Your task to perform on an android device: turn on priority inbox in the gmail app Image 0: 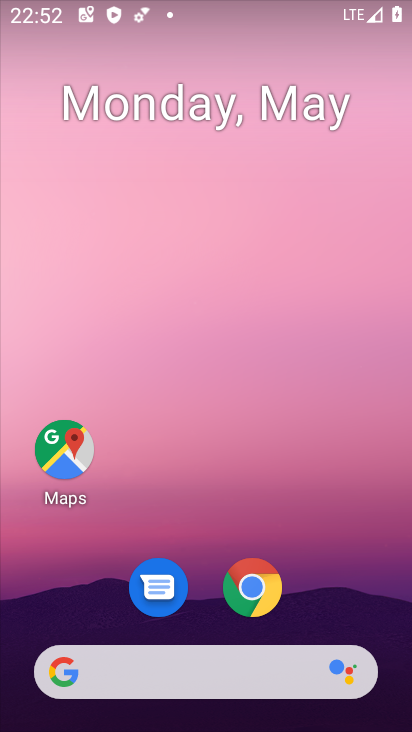
Step 0: drag from (214, 639) to (151, 9)
Your task to perform on an android device: turn on priority inbox in the gmail app Image 1: 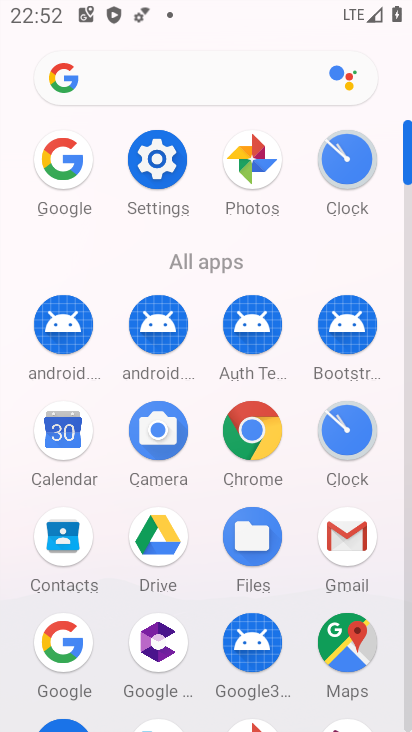
Step 1: click (345, 557)
Your task to perform on an android device: turn on priority inbox in the gmail app Image 2: 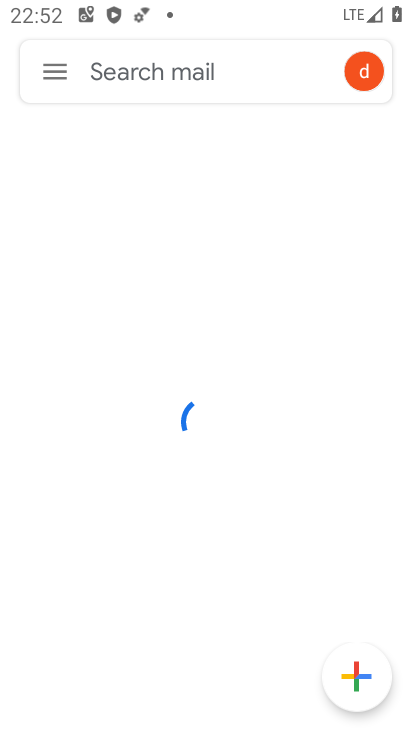
Step 2: click (57, 77)
Your task to perform on an android device: turn on priority inbox in the gmail app Image 3: 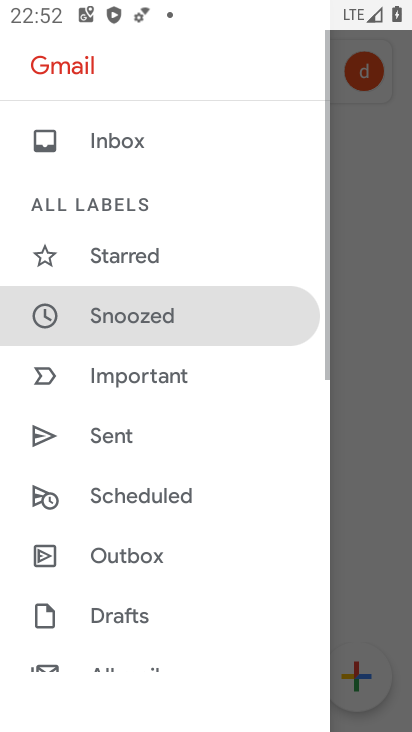
Step 3: drag from (176, 591) to (133, 117)
Your task to perform on an android device: turn on priority inbox in the gmail app Image 4: 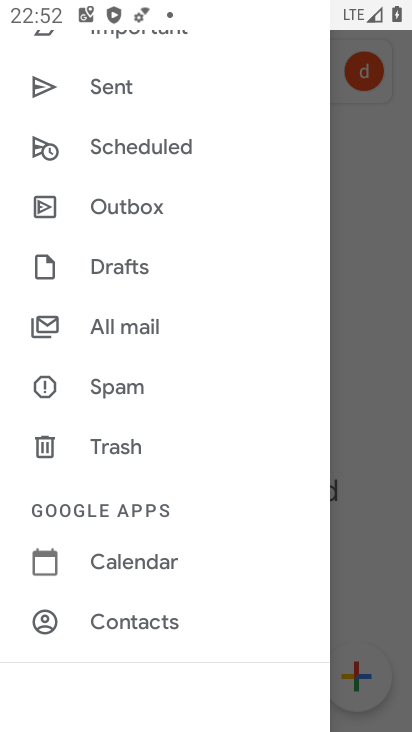
Step 4: drag from (149, 544) to (123, 168)
Your task to perform on an android device: turn on priority inbox in the gmail app Image 5: 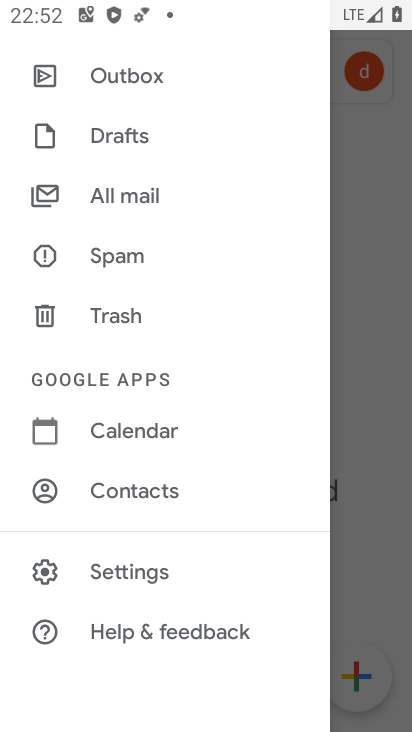
Step 5: click (127, 565)
Your task to perform on an android device: turn on priority inbox in the gmail app Image 6: 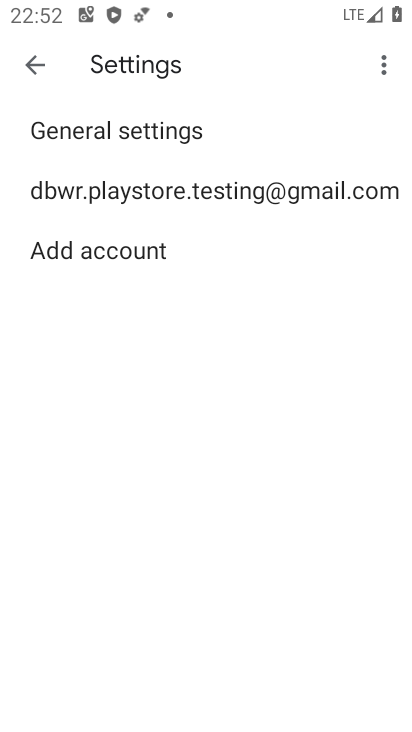
Step 6: click (188, 205)
Your task to perform on an android device: turn on priority inbox in the gmail app Image 7: 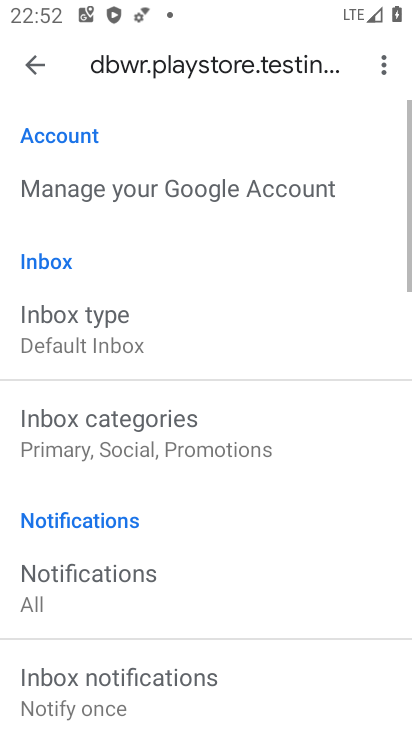
Step 7: click (112, 321)
Your task to perform on an android device: turn on priority inbox in the gmail app Image 8: 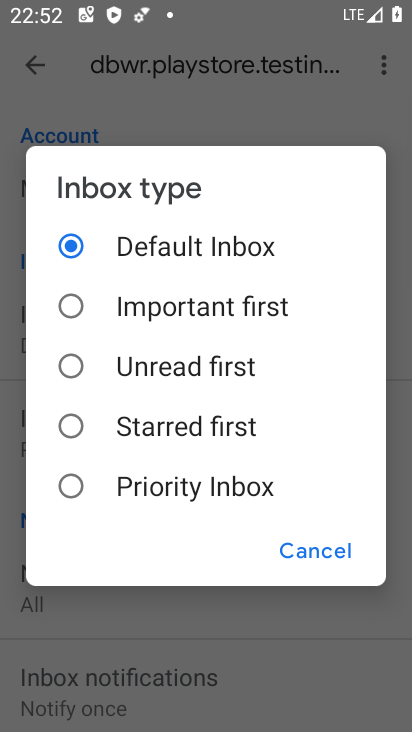
Step 8: click (191, 502)
Your task to perform on an android device: turn on priority inbox in the gmail app Image 9: 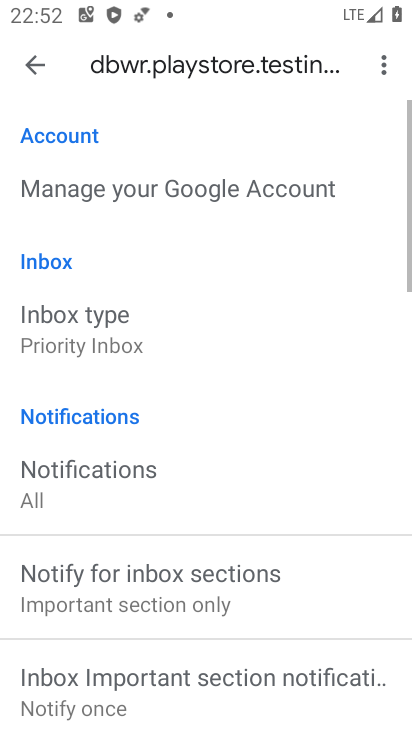
Step 9: task complete